Your task to perform on an android device: open chrome and create a bookmark for the current page Image 0: 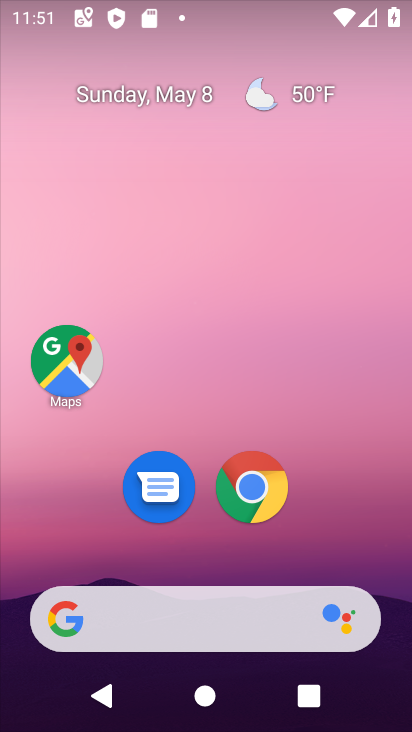
Step 0: press home button
Your task to perform on an android device: open chrome and create a bookmark for the current page Image 1: 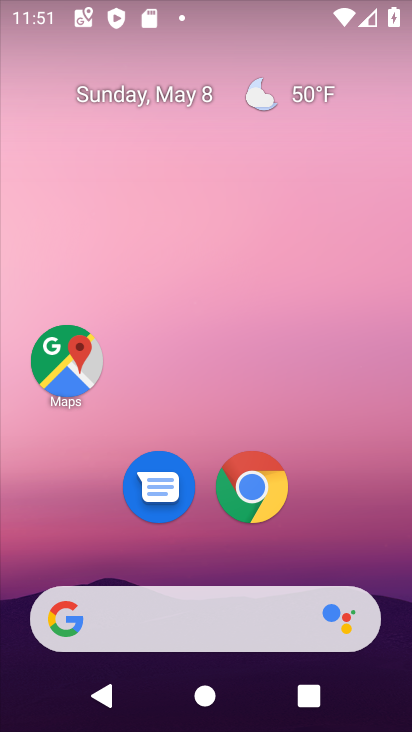
Step 1: click (249, 485)
Your task to perform on an android device: open chrome and create a bookmark for the current page Image 2: 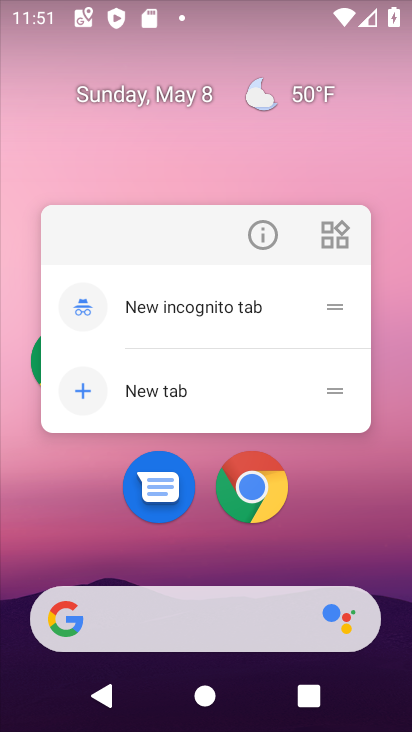
Step 2: click (252, 493)
Your task to perform on an android device: open chrome and create a bookmark for the current page Image 3: 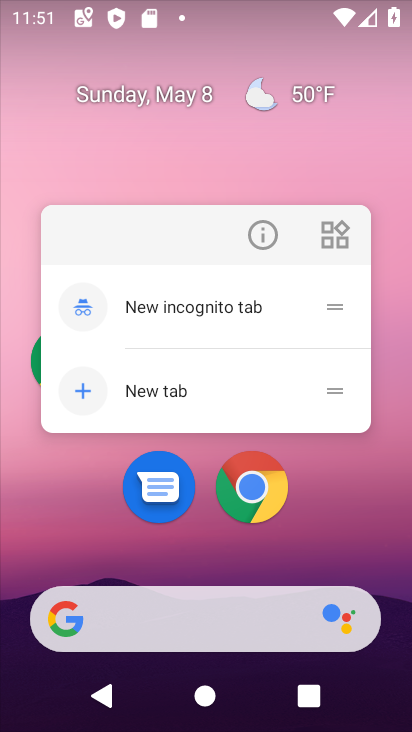
Step 3: click (246, 503)
Your task to perform on an android device: open chrome and create a bookmark for the current page Image 4: 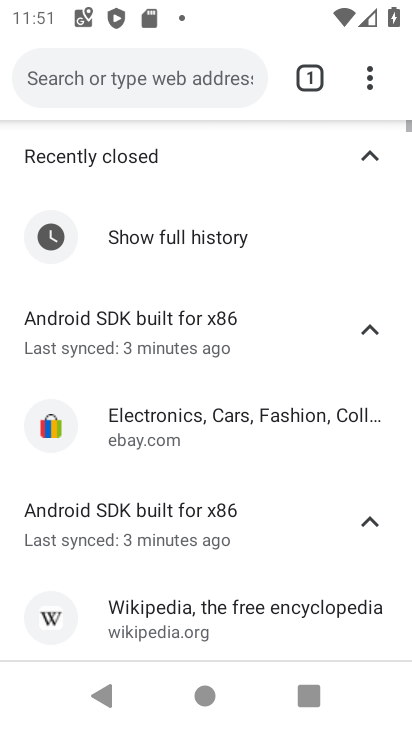
Step 4: drag from (367, 86) to (316, 73)
Your task to perform on an android device: open chrome and create a bookmark for the current page Image 5: 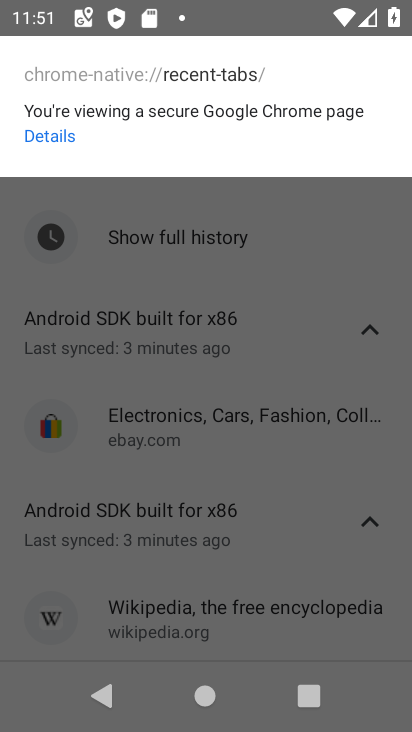
Step 5: click (232, 222)
Your task to perform on an android device: open chrome and create a bookmark for the current page Image 6: 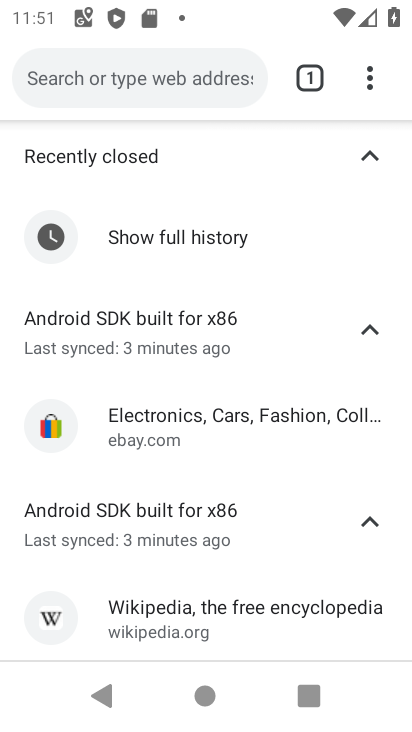
Step 6: drag from (368, 93) to (123, 70)
Your task to perform on an android device: open chrome and create a bookmark for the current page Image 7: 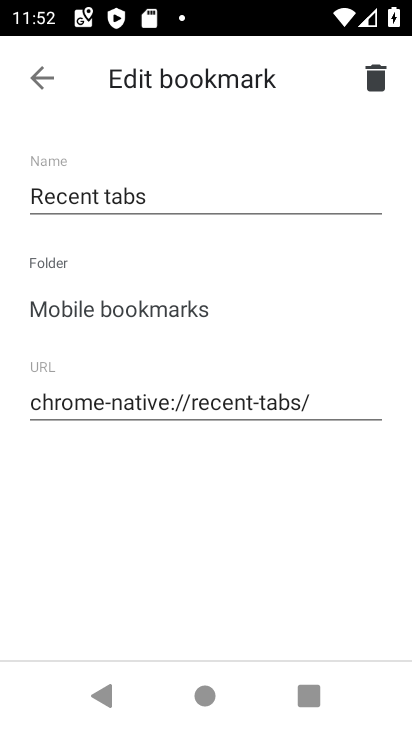
Step 7: click (164, 312)
Your task to perform on an android device: open chrome and create a bookmark for the current page Image 8: 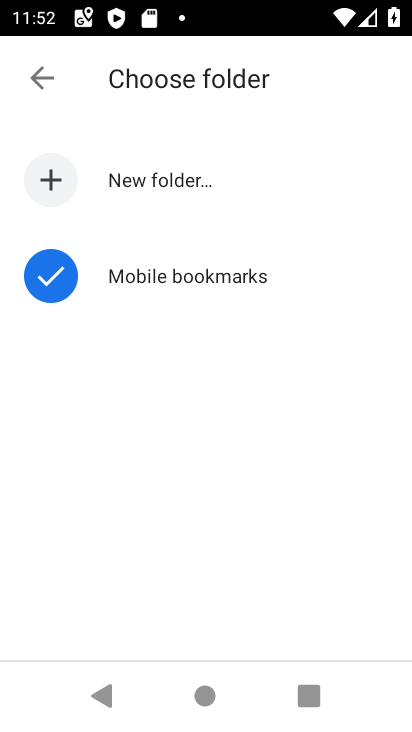
Step 8: click (49, 170)
Your task to perform on an android device: open chrome and create a bookmark for the current page Image 9: 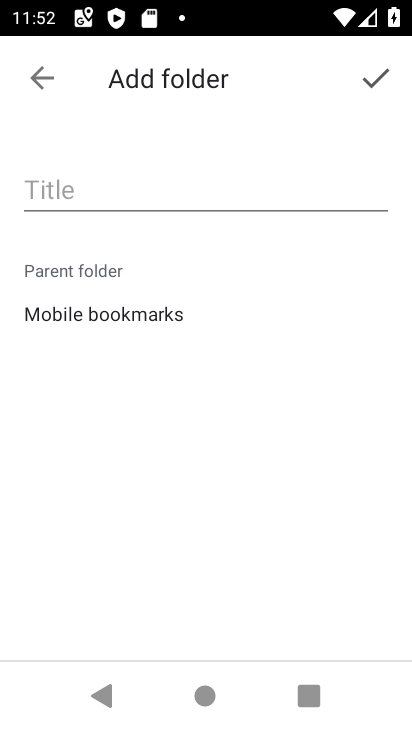
Step 9: click (77, 193)
Your task to perform on an android device: open chrome and create a bookmark for the current page Image 10: 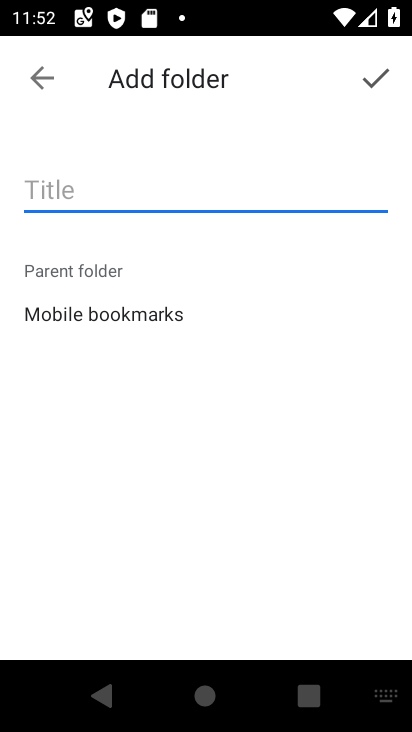
Step 10: type "1"
Your task to perform on an android device: open chrome and create a bookmark for the current page Image 11: 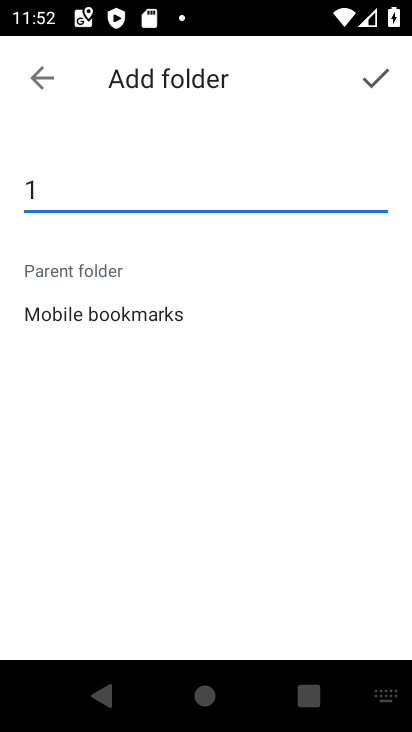
Step 11: click (375, 87)
Your task to perform on an android device: open chrome and create a bookmark for the current page Image 12: 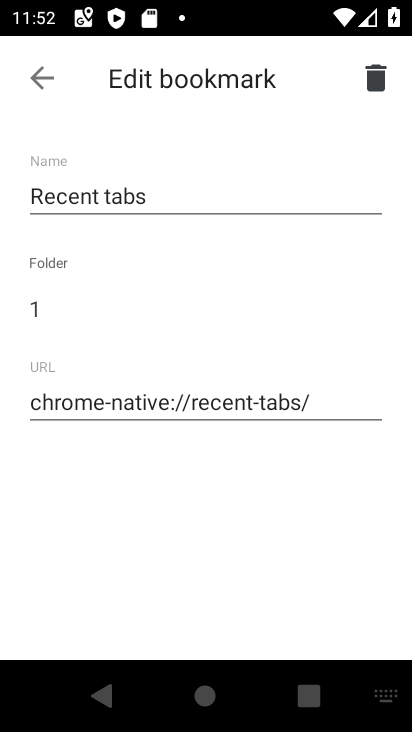
Step 12: task complete